Your task to perform on an android device: toggle wifi Image 0: 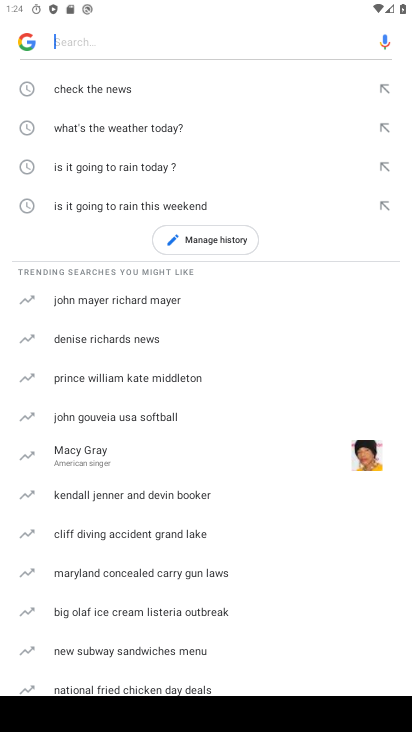
Step 0: press home button
Your task to perform on an android device: toggle wifi Image 1: 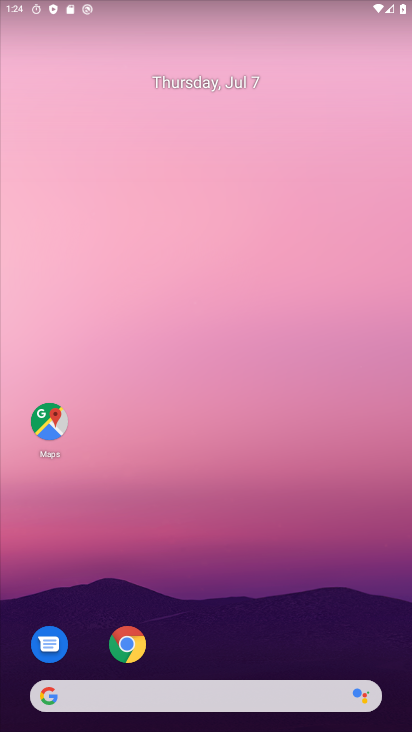
Step 1: drag from (208, 707) to (208, 75)
Your task to perform on an android device: toggle wifi Image 2: 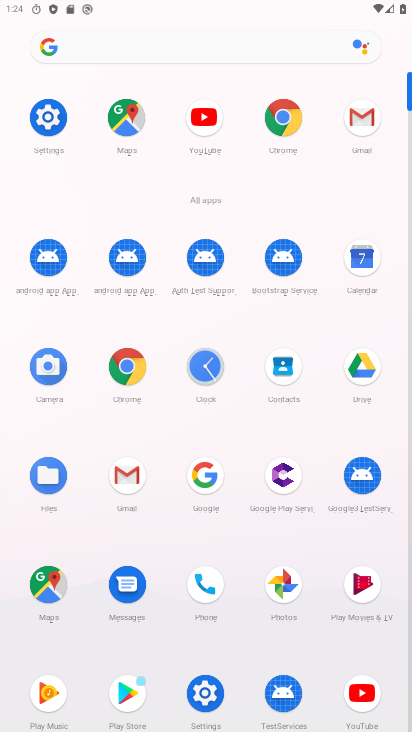
Step 2: click (49, 118)
Your task to perform on an android device: toggle wifi Image 3: 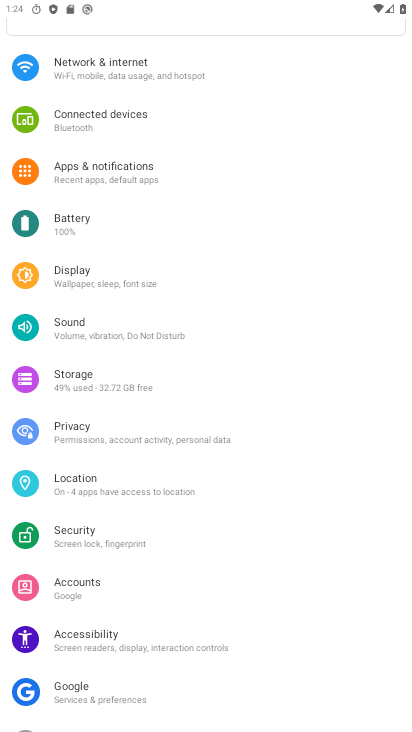
Step 3: click (106, 68)
Your task to perform on an android device: toggle wifi Image 4: 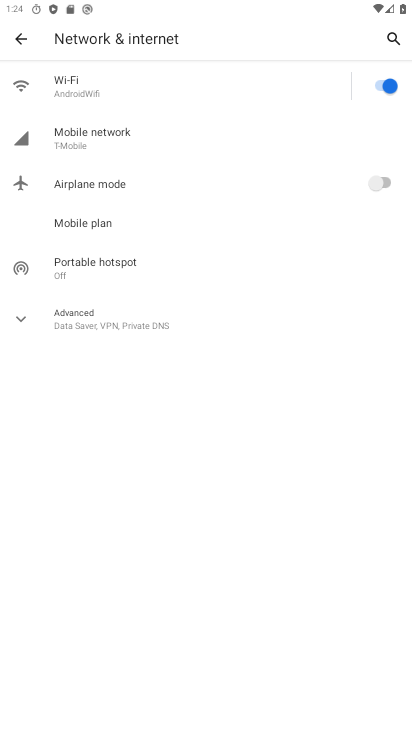
Step 4: click (383, 85)
Your task to perform on an android device: toggle wifi Image 5: 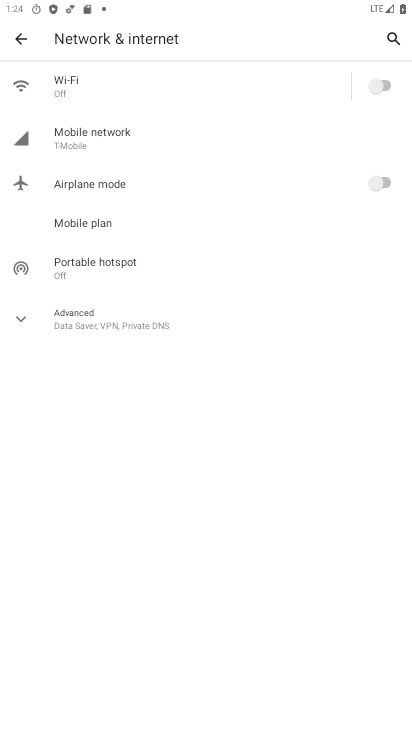
Step 5: task complete